Your task to perform on an android device: refresh tabs in the chrome app Image 0: 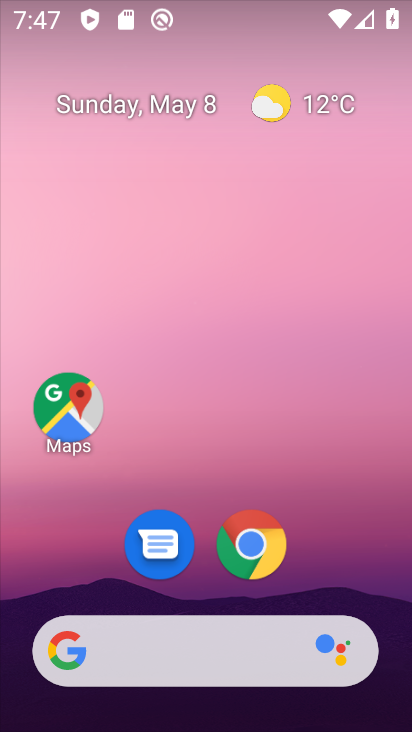
Step 0: click (254, 557)
Your task to perform on an android device: refresh tabs in the chrome app Image 1: 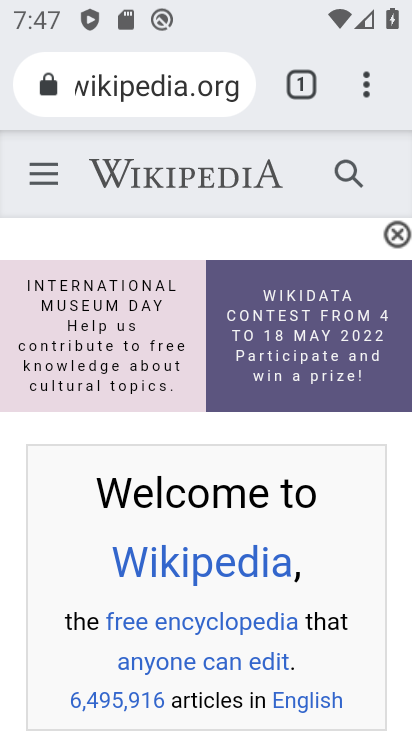
Step 1: click (364, 89)
Your task to perform on an android device: refresh tabs in the chrome app Image 2: 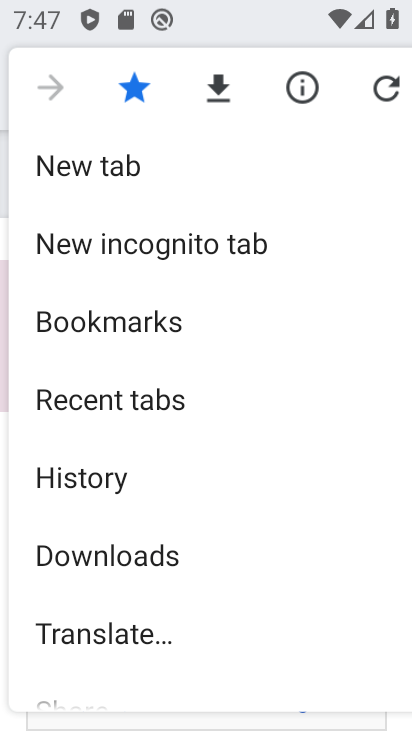
Step 2: click (385, 87)
Your task to perform on an android device: refresh tabs in the chrome app Image 3: 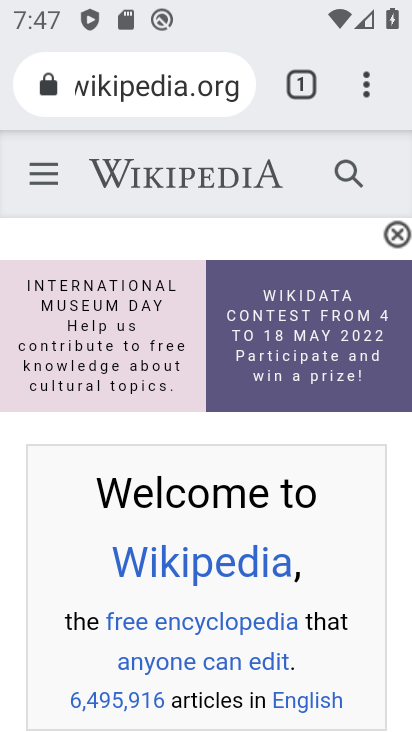
Step 3: task complete